Your task to perform on an android device: turn on translation in the chrome app Image 0: 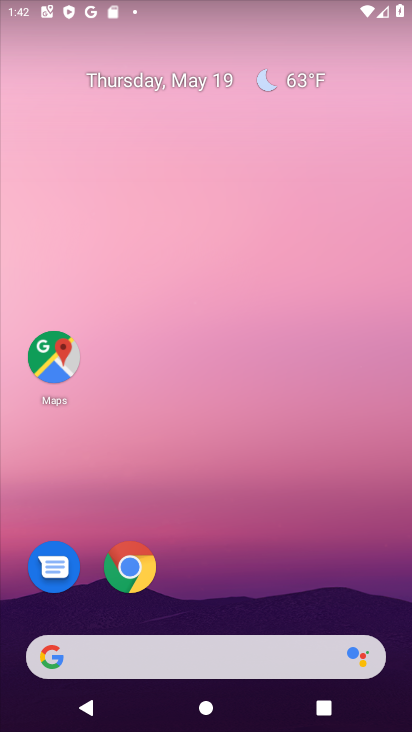
Step 0: drag from (291, 430) to (284, 1)
Your task to perform on an android device: turn on translation in the chrome app Image 1: 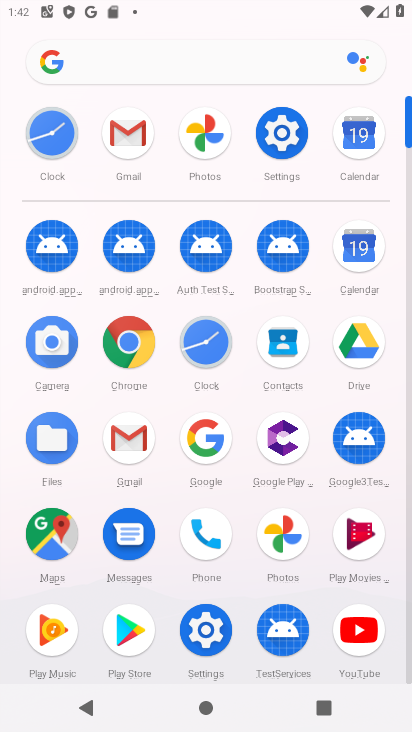
Step 1: click (130, 339)
Your task to perform on an android device: turn on translation in the chrome app Image 2: 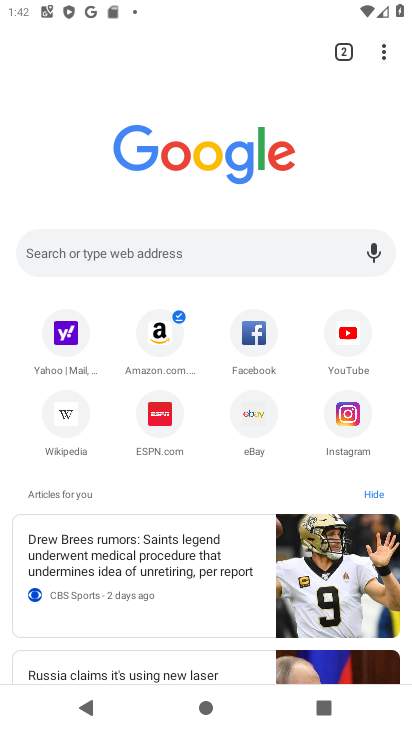
Step 2: click (384, 52)
Your task to perform on an android device: turn on translation in the chrome app Image 3: 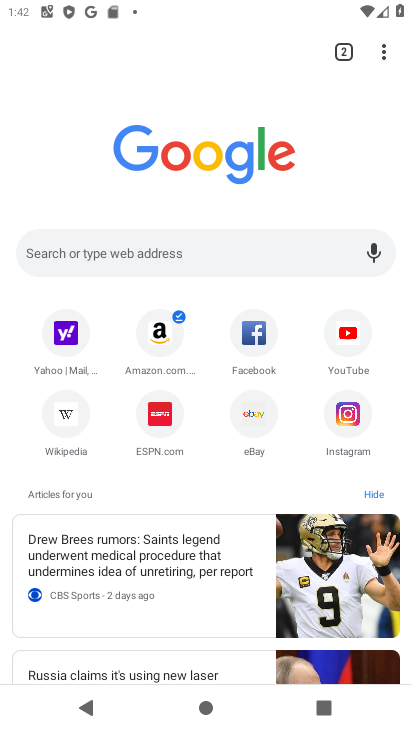
Step 3: drag from (382, 58) to (204, 440)
Your task to perform on an android device: turn on translation in the chrome app Image 4: 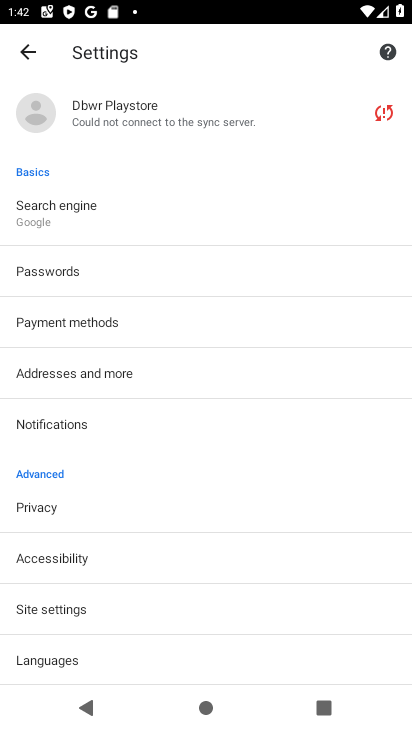
Step 4: click (61, 662)
Your task to perform on an android device: turn on translation in the chrome app Image 5: 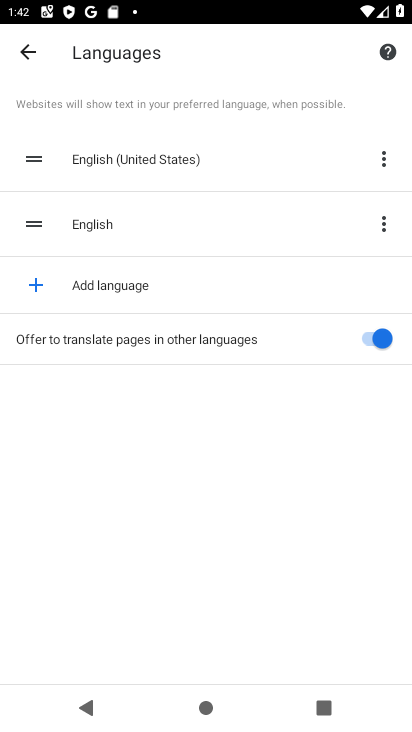
Step 5: task complete